Your task to perform on an android device: read, delete, or share a saved page in the chrome app Image 0: 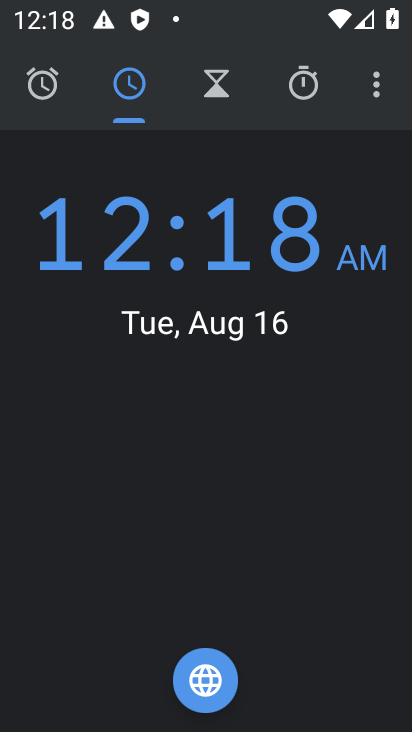
Step 0: press home button
Your task to perform on an android device: read, delete, or share a saved page in the chrome app Image 1: 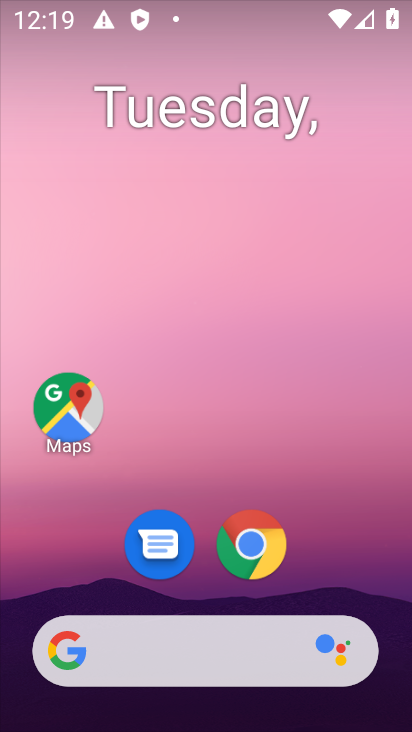
Step 1: drag from (329, 561) to (144, 10)
Your task to perform on an android device: read, delete, or share a saved page in the chrome app Image 2: 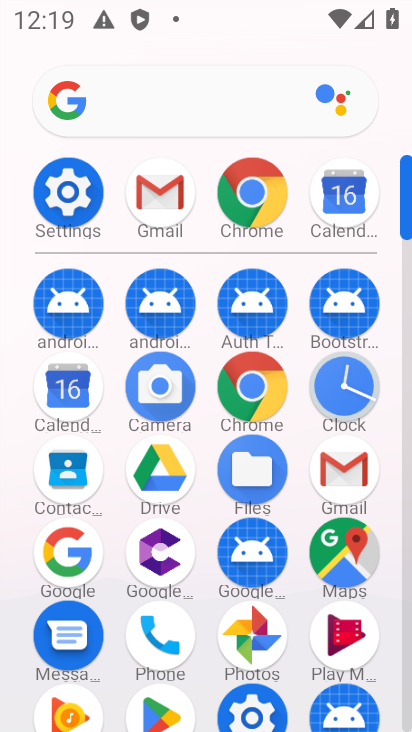
Step 2: click (248, 379)
Your task to perform on an android device: read, delete, or share a saved page in the chrome app Image 3: 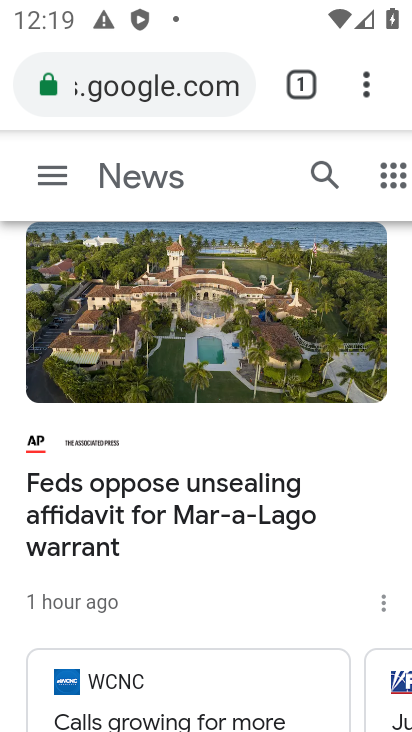
Step 3: drag from (361, 84) to (80, 488)
Your task to perform on an android device: read, delete, or share a saved page in the chrome app Image 4: 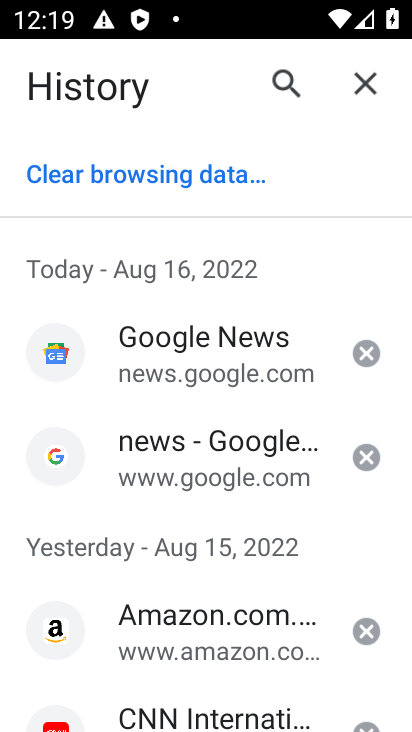
Step 4: click (366, 75)
Your task to perform on an android device: read, delete, or share a saved page in the chrome app Image 5: 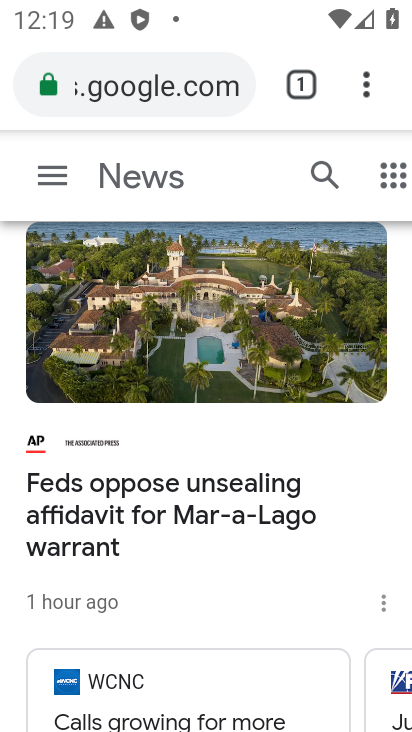
Step 5: task complete